Your task to perform on an android device: Turn on the flashlight Image 0: 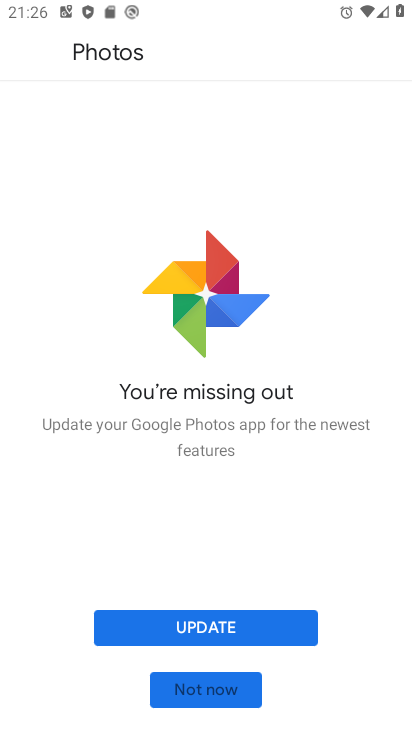
Step 0: press home button
Your task to perform on an android device: Turn on the flashlight Image 1: 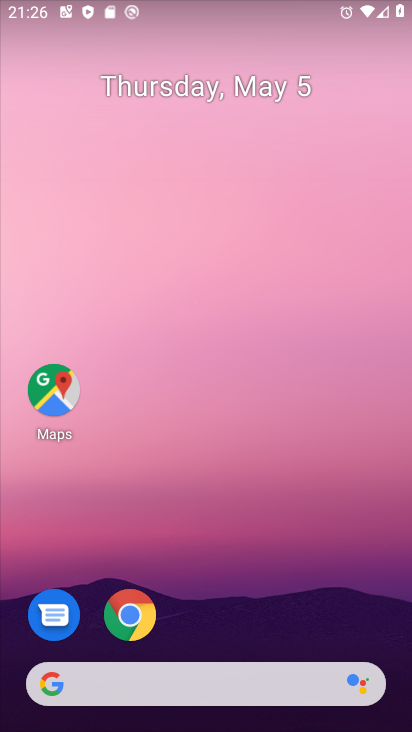
Step 1: drag from (242, 636) to (266, 7)
Your task to perform on an android device: Turn on the flashlight Image 2: 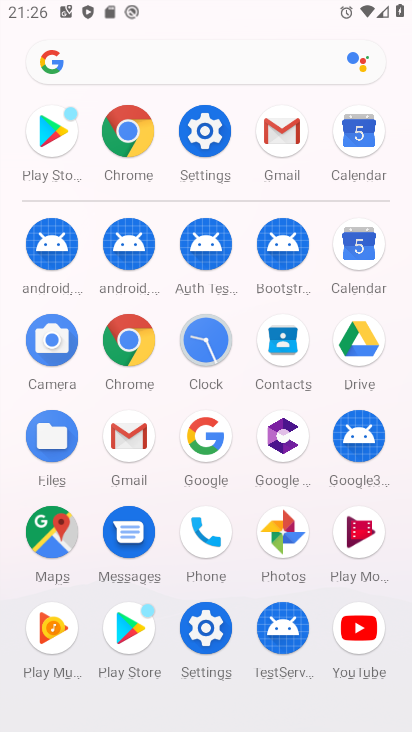
Step 2: click (208, 143)
Your task to perform on an android device: Turn on the flashlight Image 3: 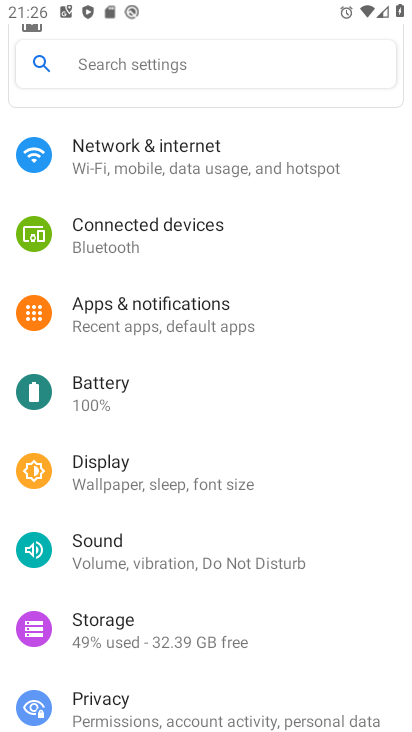
Step 3: click (238, 75)
Your task to perform on an android device: Turn on the flashlight Image 4: 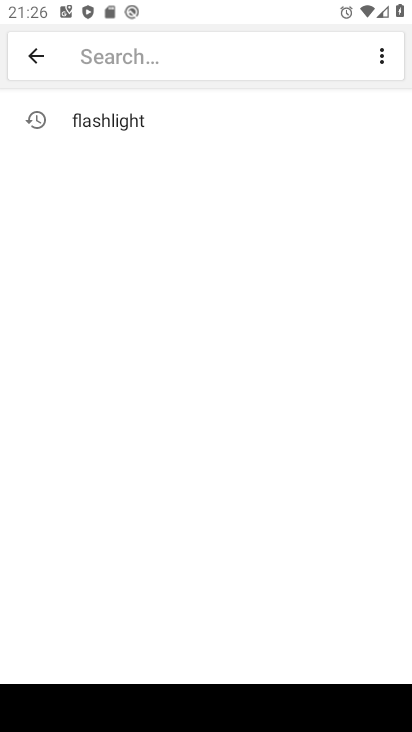
Step 4: type "flashlight"
Your task to perform on an android device: Turn on the flashlight Image 5: 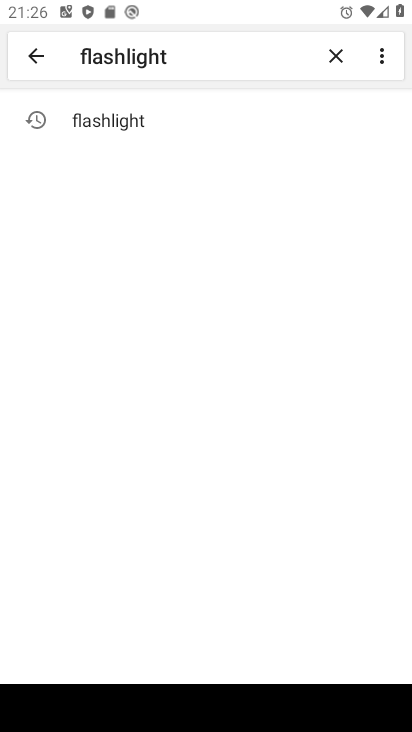
Step 5: click (107, 138)
Your task to perform on an android device: Turn on the flashlight Image 6: 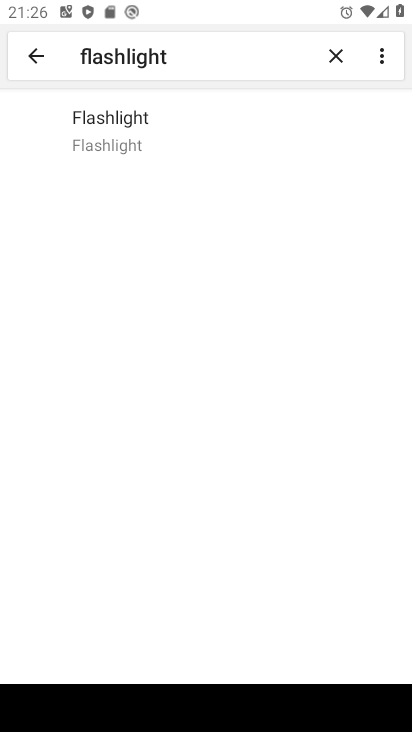
Step 6: click (112, 153)
Your task to perform on an android device: Turn on the flashlight Image 7: 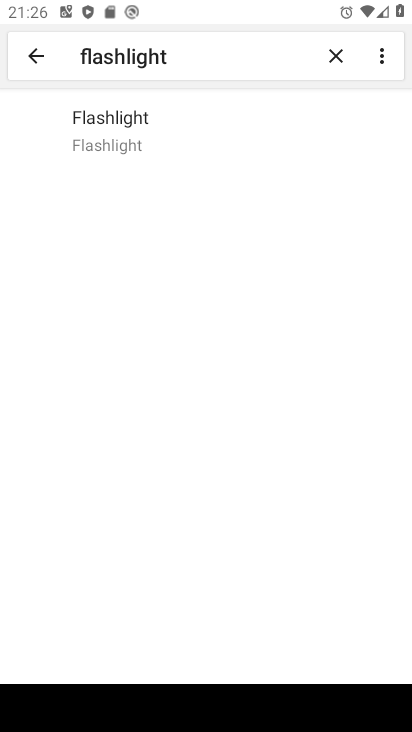
Step 7: task complete